Your task to perform on an android device: add a contact Image 0: 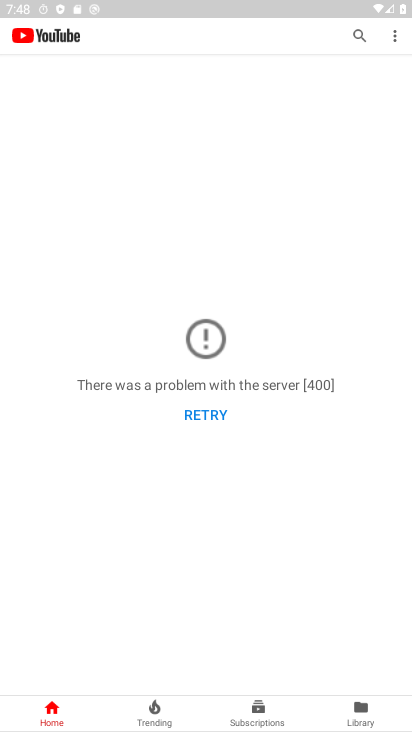
Step 0: press home button
Your task to perform on an android device: add a contact Image 1: 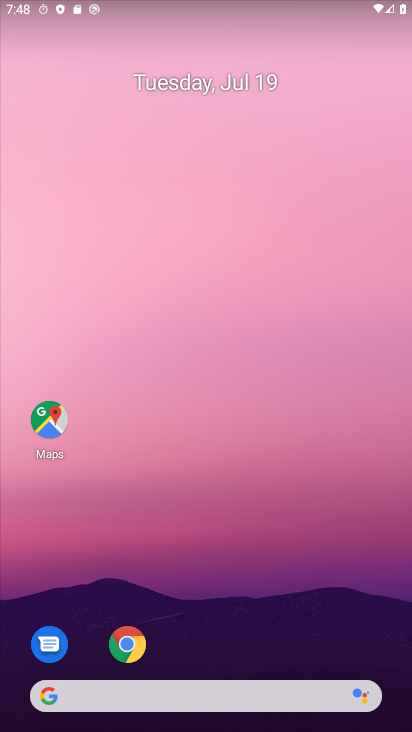
Step 1: drag from (18, 698) to (254, 256)
Your task to perform on an android device: add a contact Image 2: 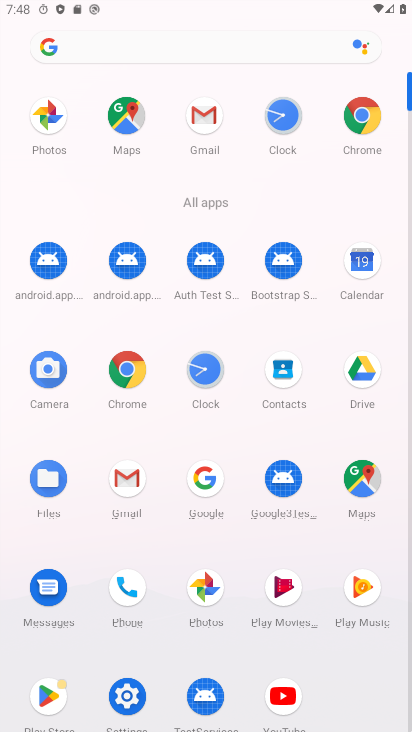
Step 2: click (285, 359)
Your task to perform on an android device: add a contact Image 3: 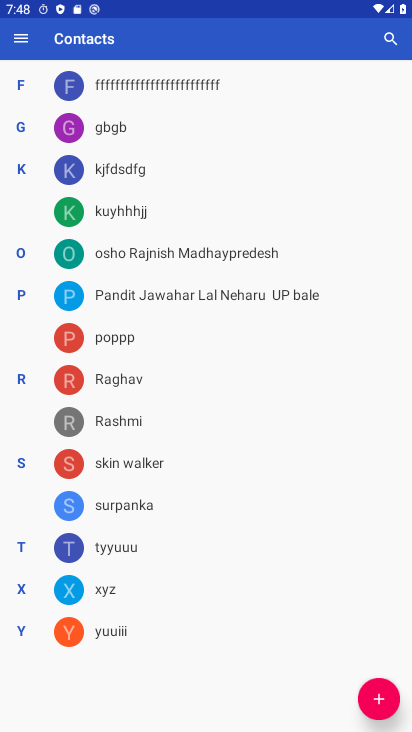
Step 3: click (381, 700)
Your task to perform on an android device: add a contact Image 4: 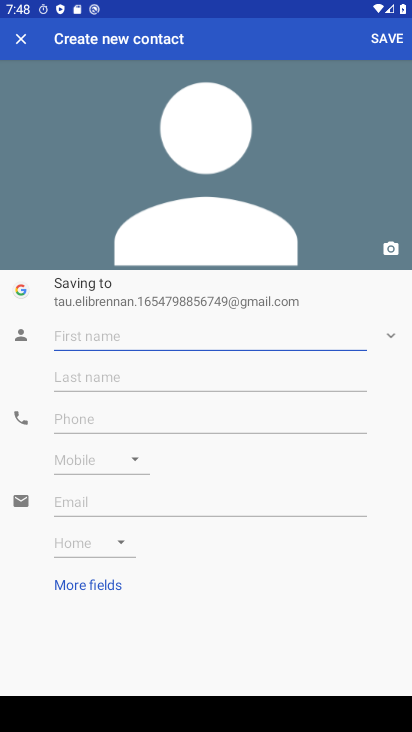
Step 4: type "ch"
Your task to perform on an android device: add a contact Image 5: 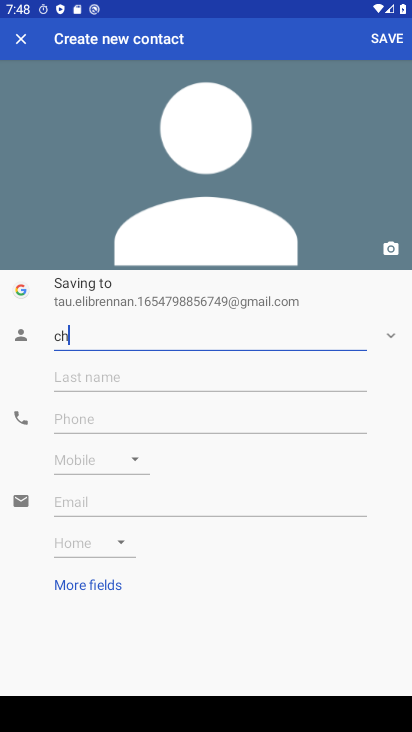
Step 5: click (385, 45)
Your task to perform on an android device: add a contact Image 6: 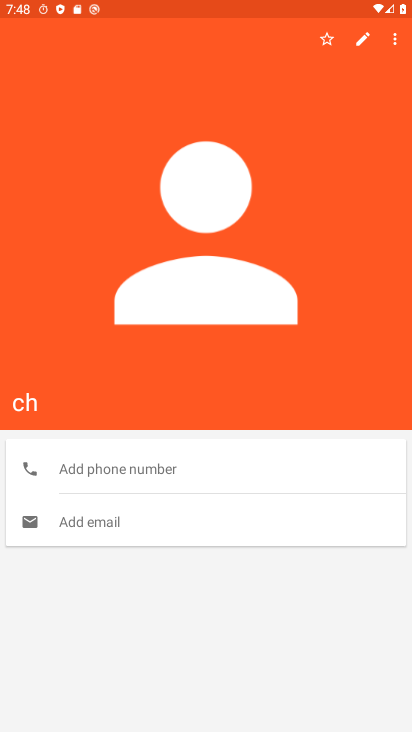
Step 6: task complete